Your task to perform on an android device: Set the phone to "Do not disturb". Image 0: 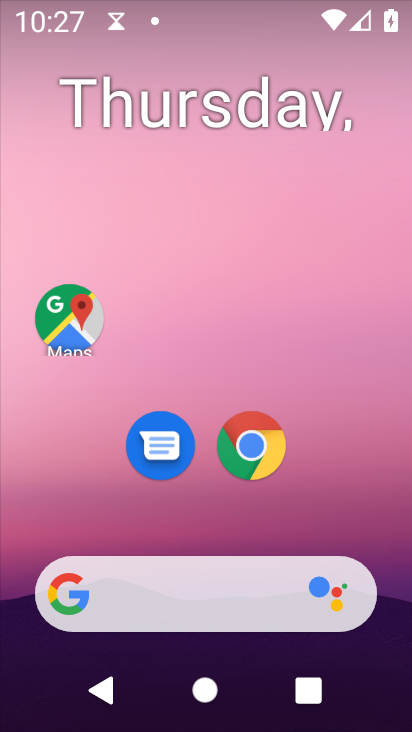
Step 0: drag from (235, 723) to (238, 54)
Your task to perform on an android device: Set the phone to "Do not disturb". Image 1: 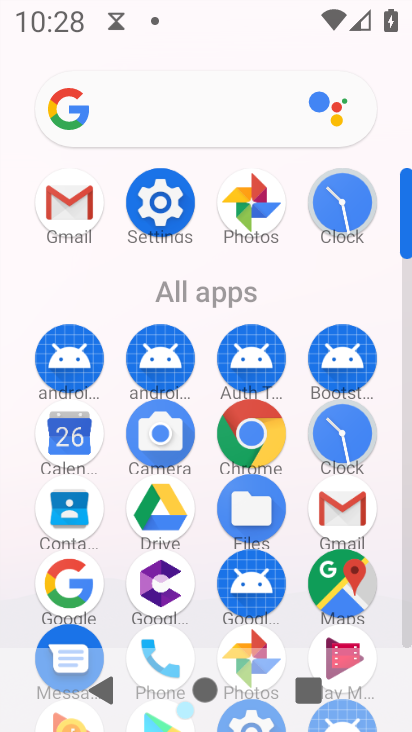
Step 1: click (155, 206)
Your task to perform on an android device: Set the phone to "Do not disturb". Image 2: 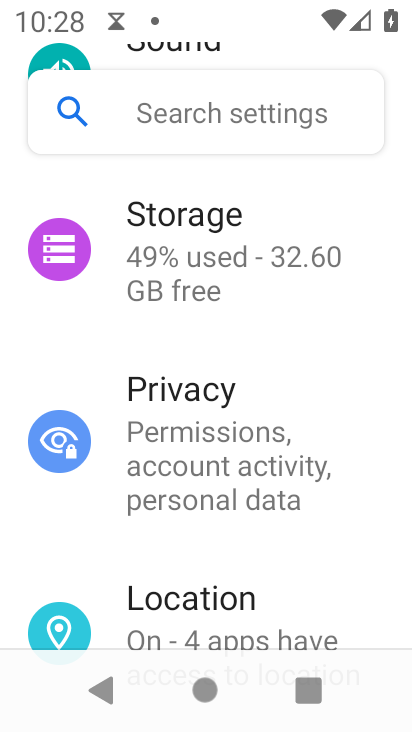
Step 2: drag from (315, 606) to (295, 256)
Your task to perform on an android device: Set the phone to "Do not disturb". Image 3: 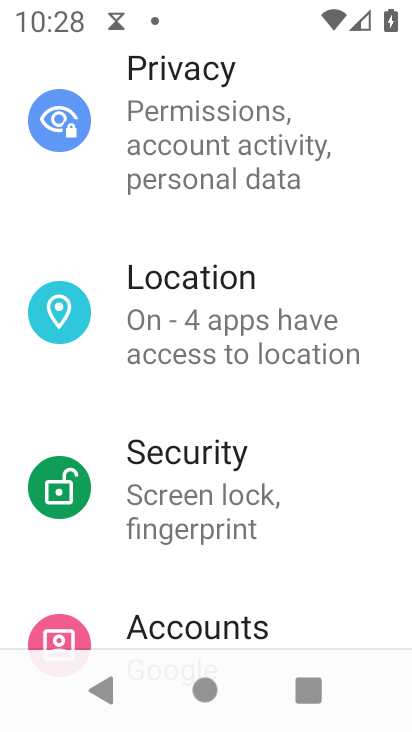
Step 3: drag from (278, 628) to (257, 175)
Your task to perform on an android device: Set the phone to "Do not disturb". Image 4: 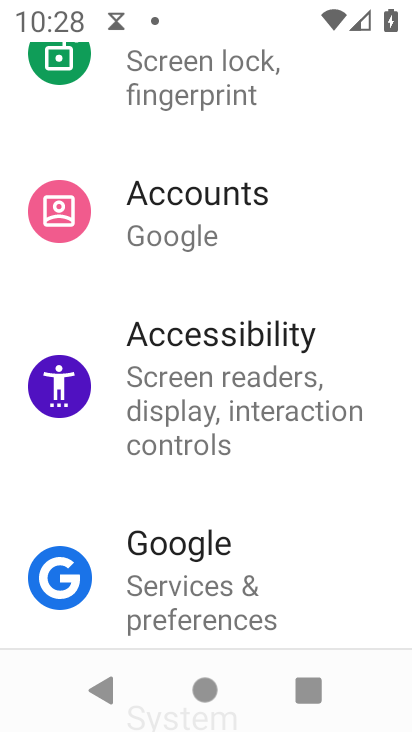
Step 4: drag from (285, 617) to (277, 164)
Your task to perform on an android device: Set the phone to "Do not disturb". Image 5: 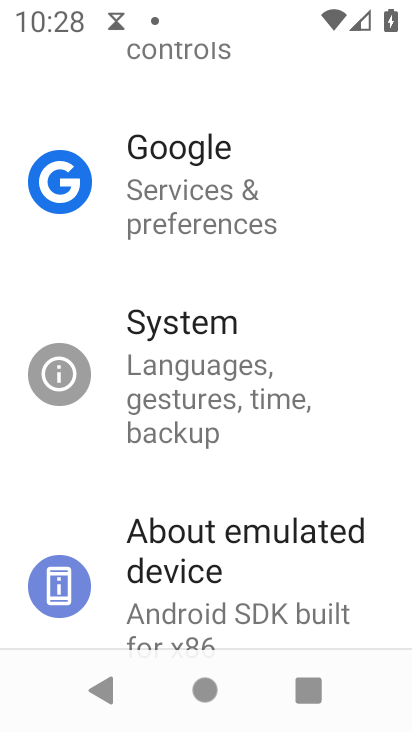
Step 5: drag from (304, 130) to (289, 566)
Your task to perform on an android device: Set the phone to "Do not disturb". Image 6: 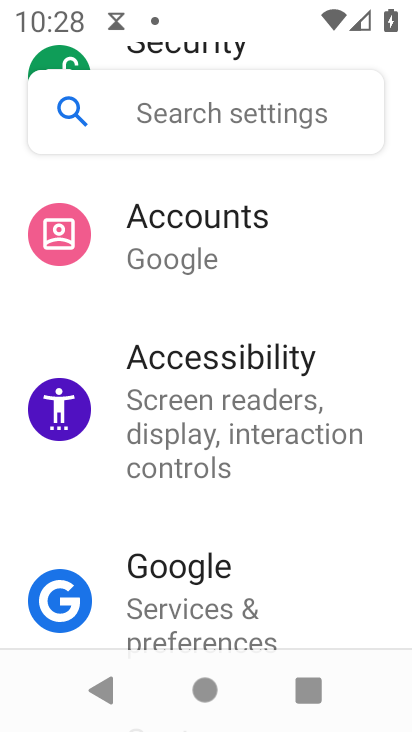
Step 6: drag from (303, 209) to (296, 528)
Your task to perform on an android device: Set the phone to "Do not disturb". Image 7: 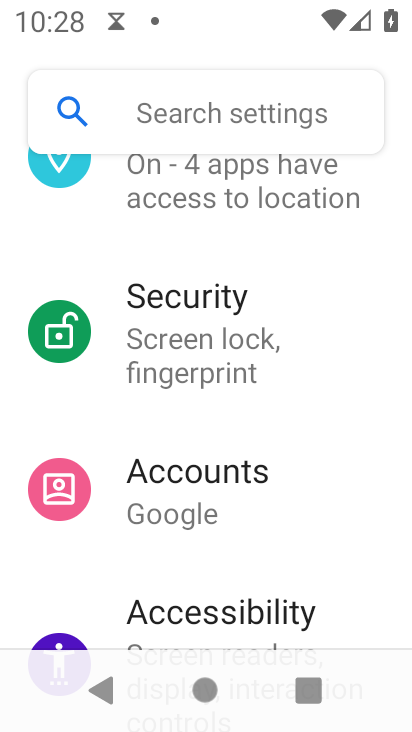
Step 7: drag from (313, 204) to (308, 553)
Your task to perform on an android device: Set the phone to "Do not disturb". Image 8: 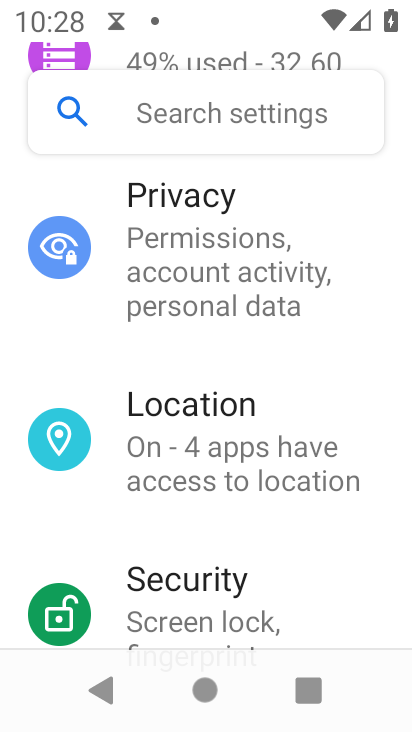
Step 8: drag from (324, 180) to (310, 512)
Your task to perform on an android device: Set the phone to "Do not disturb". Image 9: 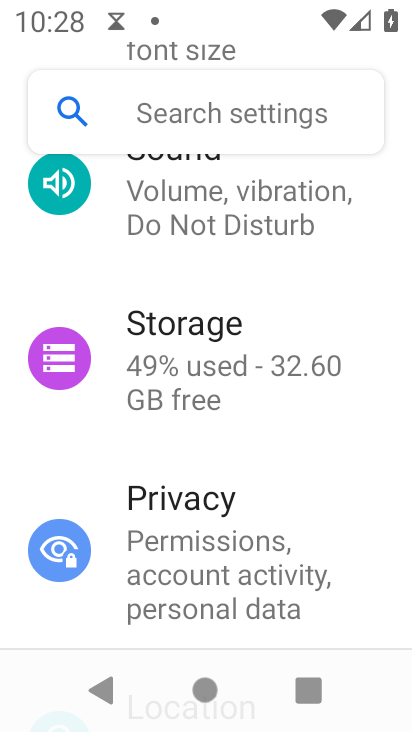
Step 9: click (243, 208)
Your task to perform on an android device: Set the phone to "Do not disturb". Image 10: 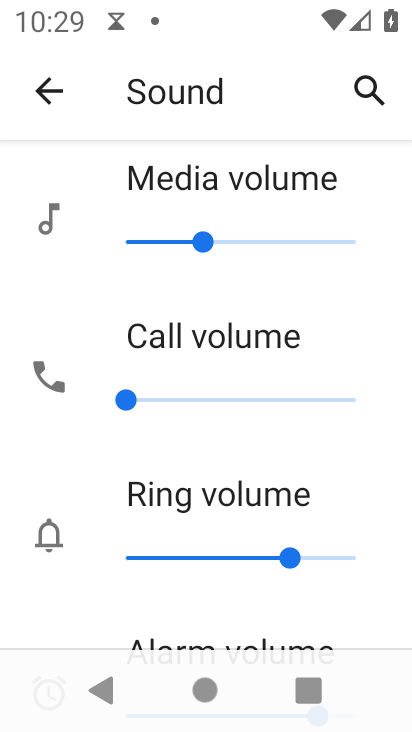
Step 10: drag from (360, 620) to (334, 151)
Your task to perform on an android device: Set the phone to "Do not disturb". Image 11: 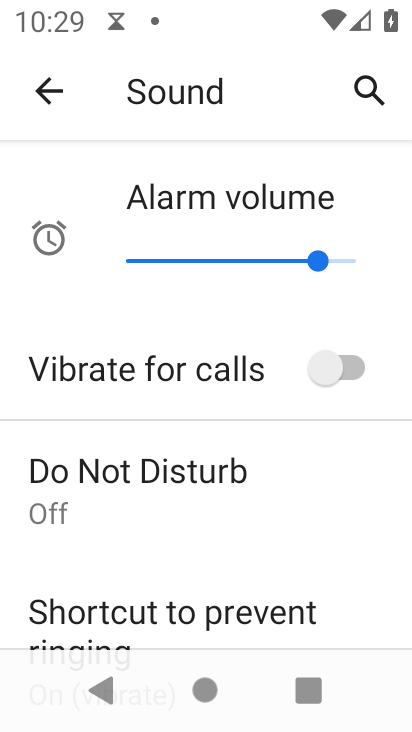
Step 11: click (104, 469)
Your task to perform on an android device: Set the phone to "Do not disturb". Image 12: 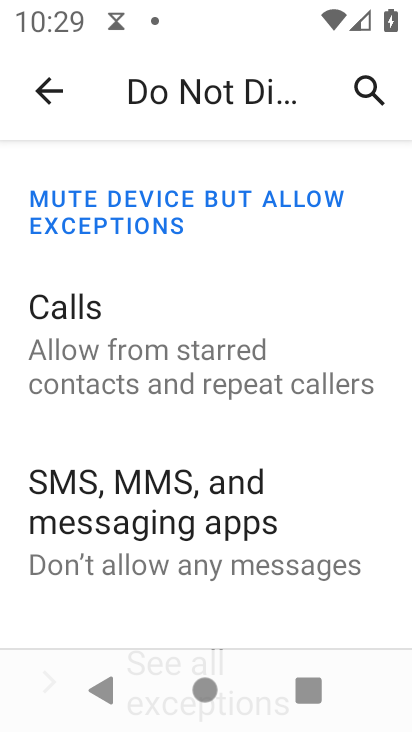
Step 12: drag from (221, 612) to (224, 123)
Your task to perform on an android device: Set the phone to "Do not disturb". Image 13: 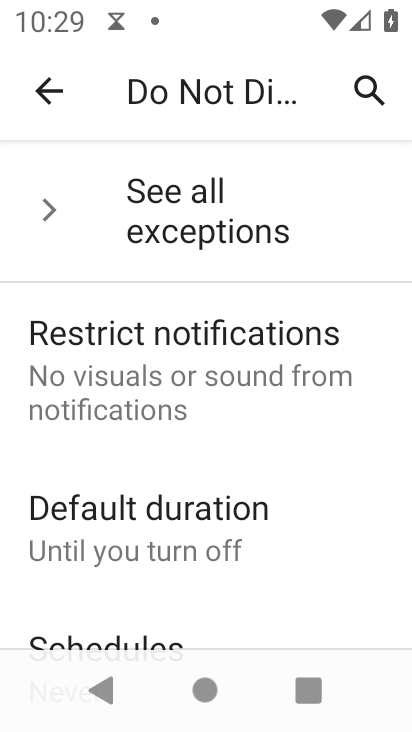
Step 13: drag from (299, 630) to (266, 151)
Your task to perform on an android device: Set the phone to "Do not disturb". Image 14: 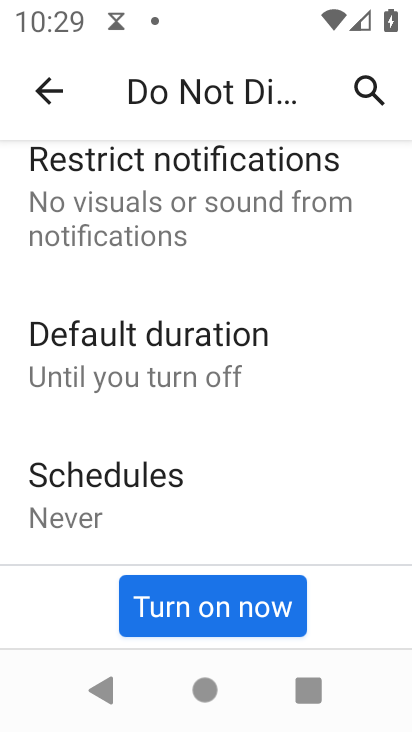
Step 14: click (210, 599)
Your task to perform on an android device: Set the phone to "Do not disturb". Image 15: 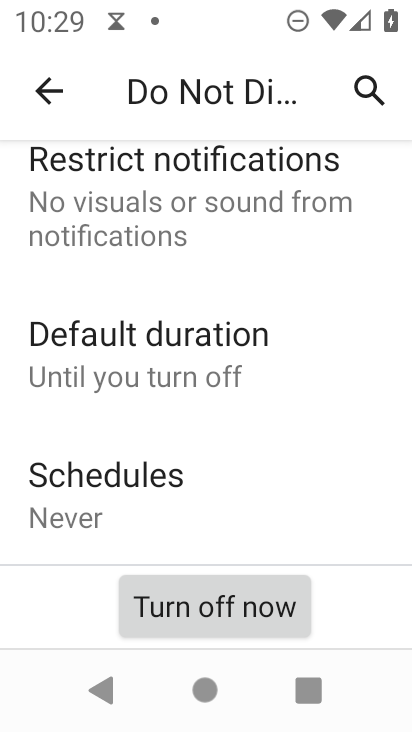
Step 15: task complete